Your task to perform on an android device: Go to display settings Image 0: 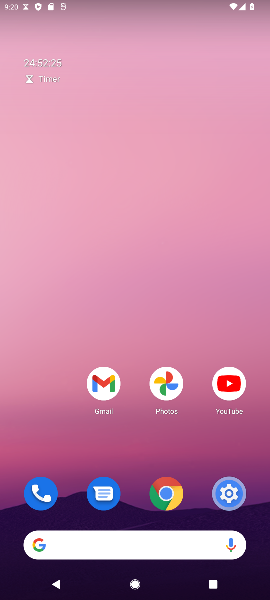
Step 0: drag from (67, 477) to (45, 143)
Your task to perform on an android device: Go to display settings Image 1: 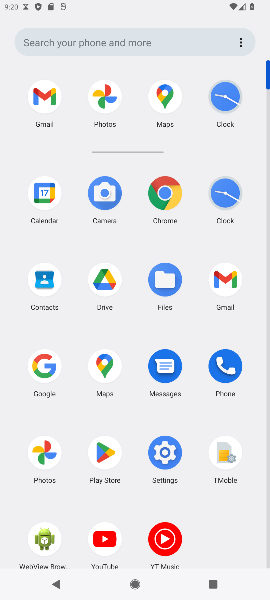
Step 1: click (166, 456)
Your task to perform on an android device: Go to display settings Image 2: 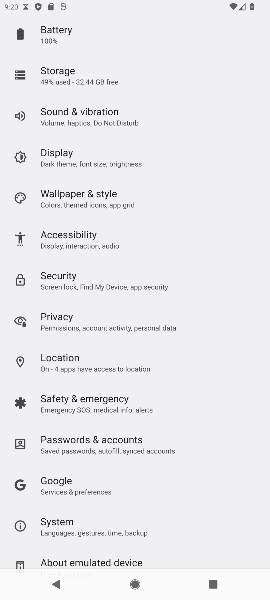
Step 2: click (80, 169)
Your task to perform on an android device: Go to display settings Image 3: 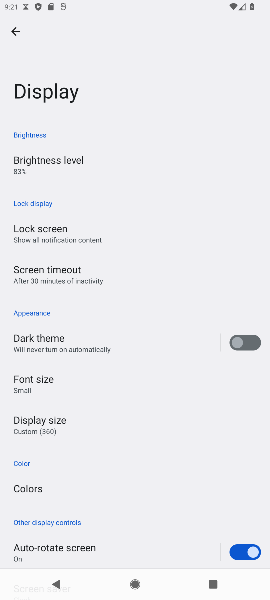
Step 3: task complete